Your task to perform on an android device: open a bookmark in the chrome app Image 0: 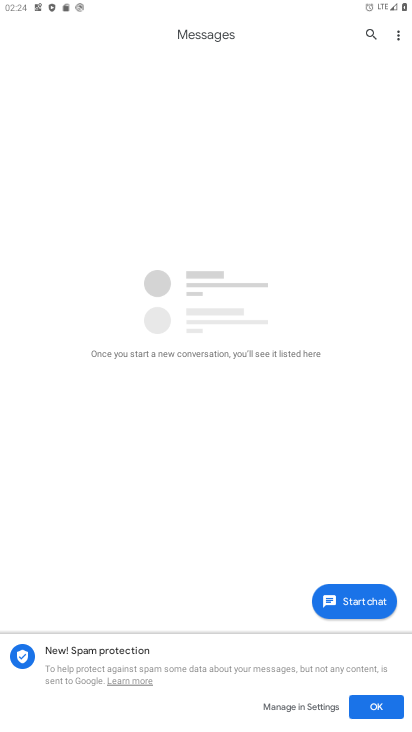
Step 0: press home button
Your task to perform on an android device: open a bookmark in the chrome app Image 1: 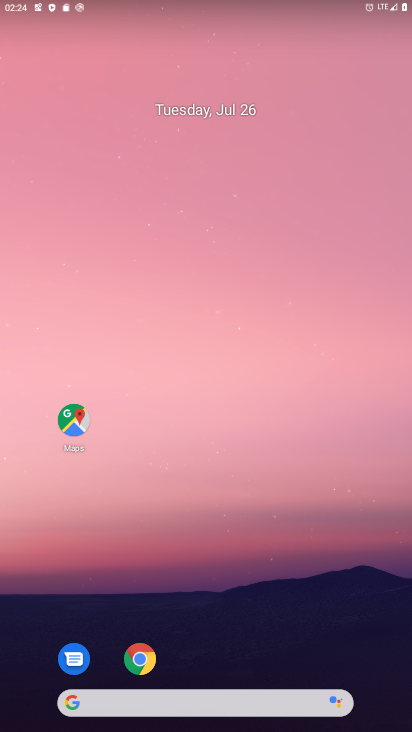
Step 1: drag from (250, 659) to (283, 130)
Your task to perform on an android device: open a bookmark in the chrome app Image 2: 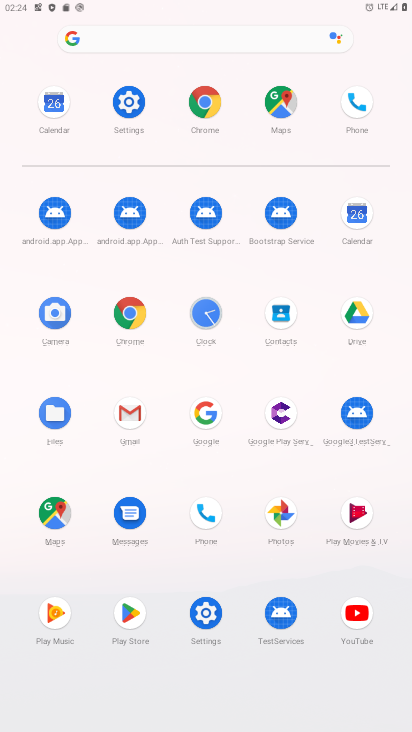
Step 2: click (133, 307)
Your task to perform on an android device: open a bookmark in the chrome app Image 3: 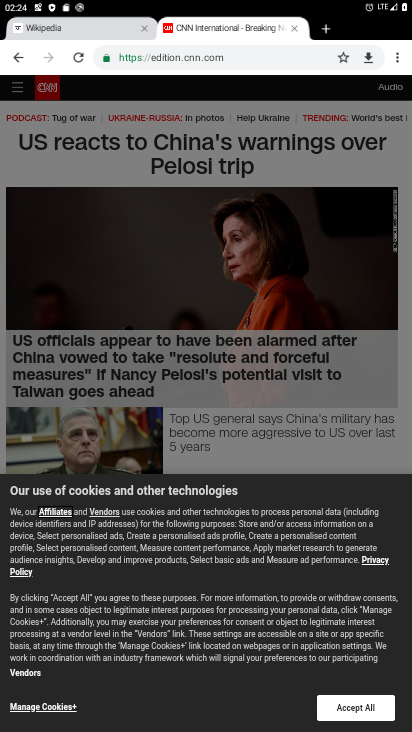
Step 3: drag from (395, 57) to (283, 117)
Your task to perform on an android device: open a bookmark in the chrome app Image 4: 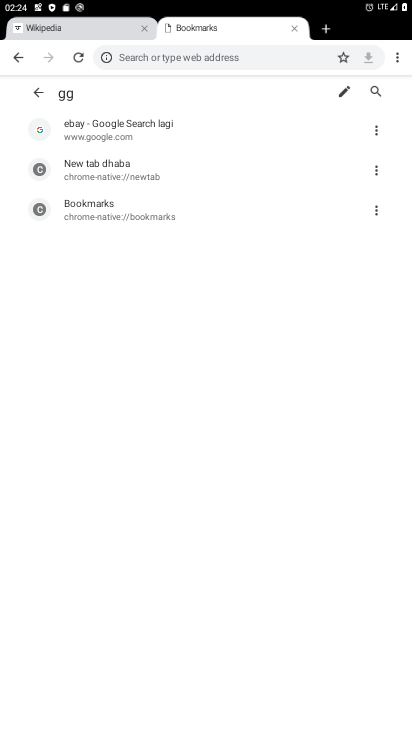
Step 4: click (132, 126)
Your task to perform on an android device: open a bookmark in the chrome app Image 5: 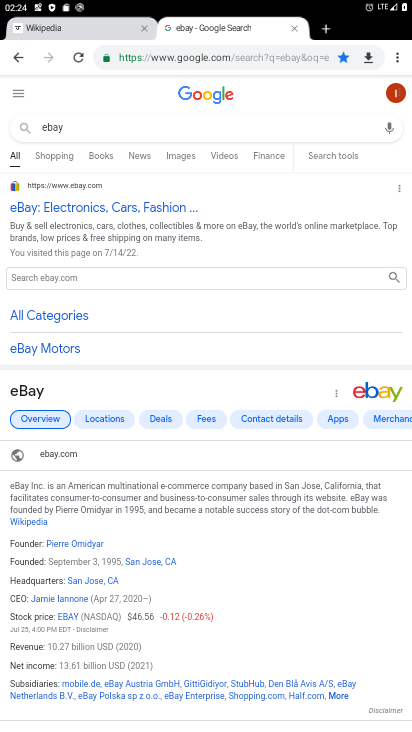
Step 5: task complete